Your task to perform on an android device: Add logitech g pro to the cart on newegg, then select checkout. Image 0: 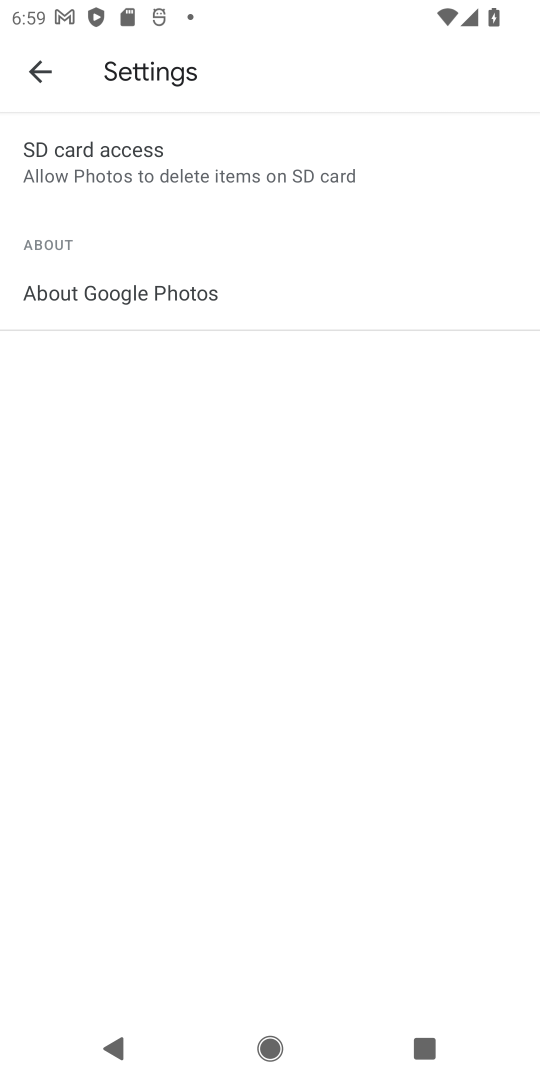
Step 0: press home button
Your task to perform on an android device: Add logitech g pro to the cart on newegg, then select checkout. Image 1: 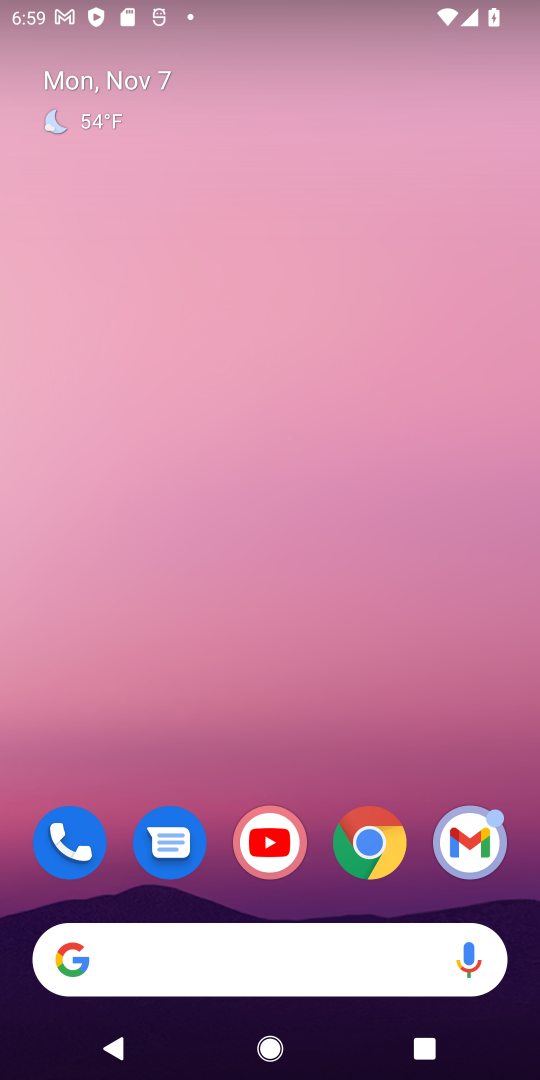
Step 1: click (377, 858)
Your task to perform on an android device: Add logitech g pro to the cart on newegg, then select checkout. Image 2: 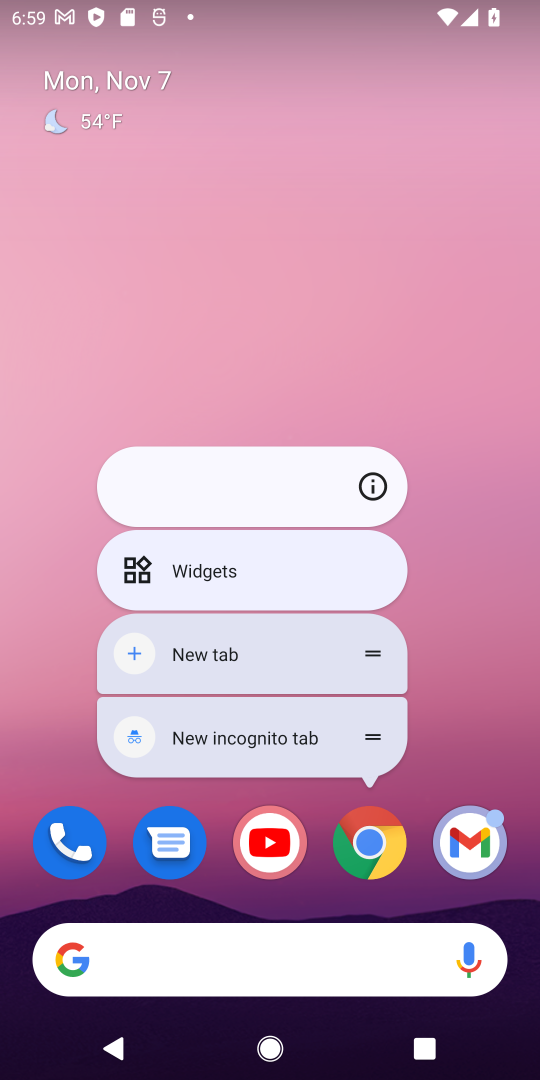
Step 2: click (367, 851)
Your task to perform on an android device: Add logitech g pro to the cart on newegg, then select checkout. Image 3: 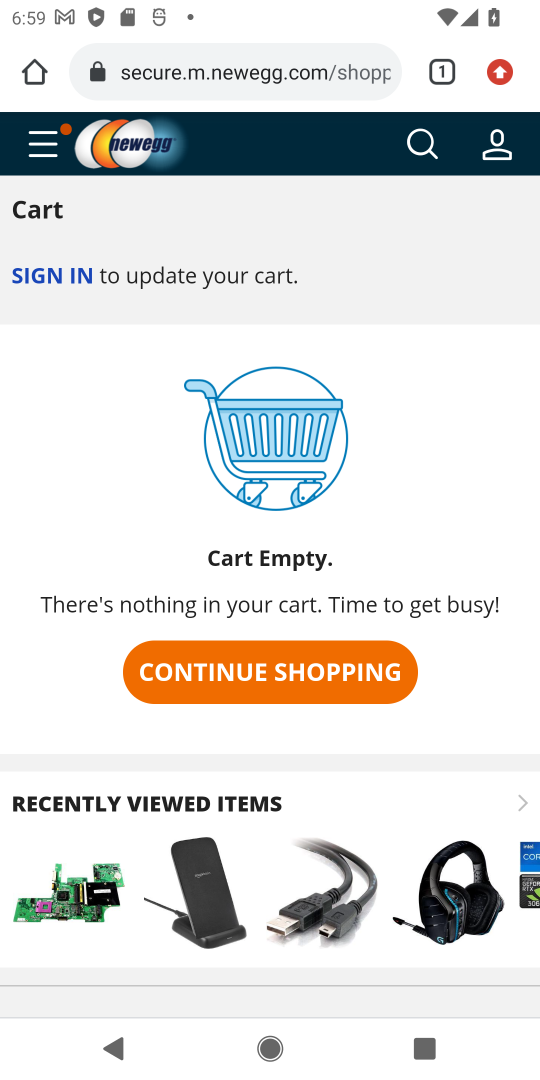
Step 3: click (414, 139)
Your task to perform on an android device: Add logitech g pro to the cart on newegg, then select checkout. Image 4: 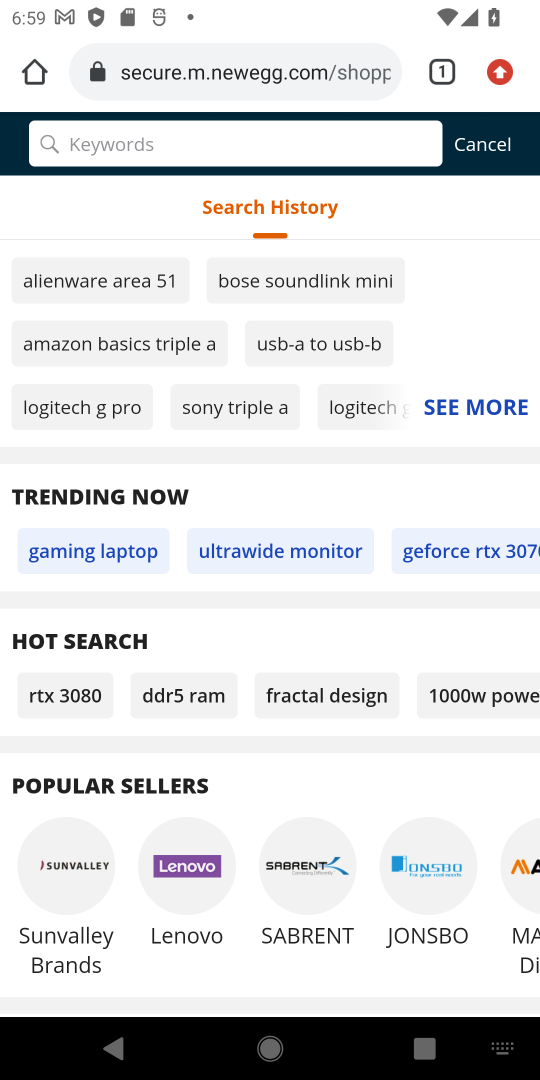
Step 4: type "logitech g pro"
Your task to perform on an android device: Add logitech g pro to the cart on newegg, then select checkout. Image 5: 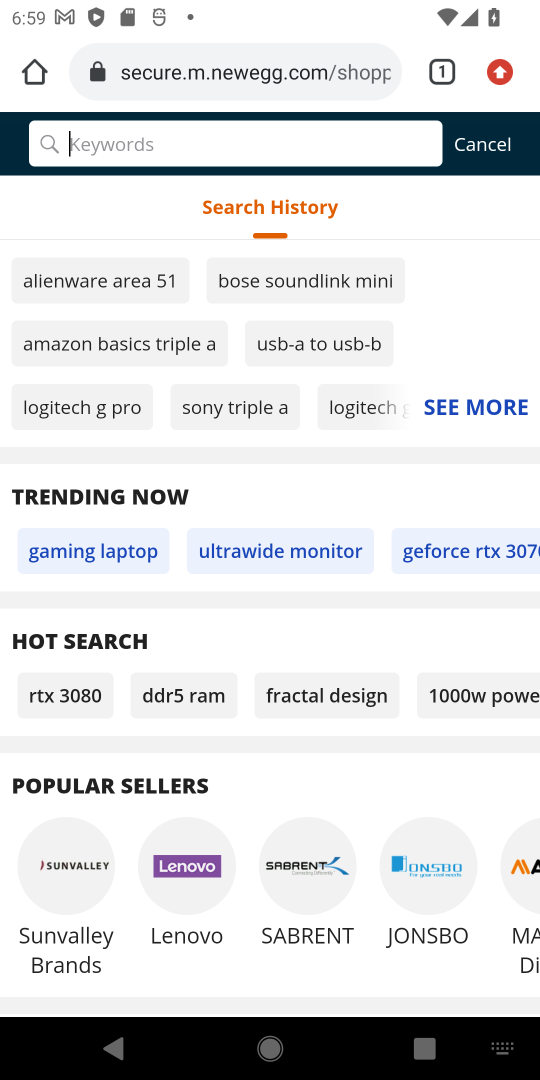
Step 5: press enter
Your task to perform on an android device: Add logitech g pro to the cart on newegg, then select checkout. Image 6: 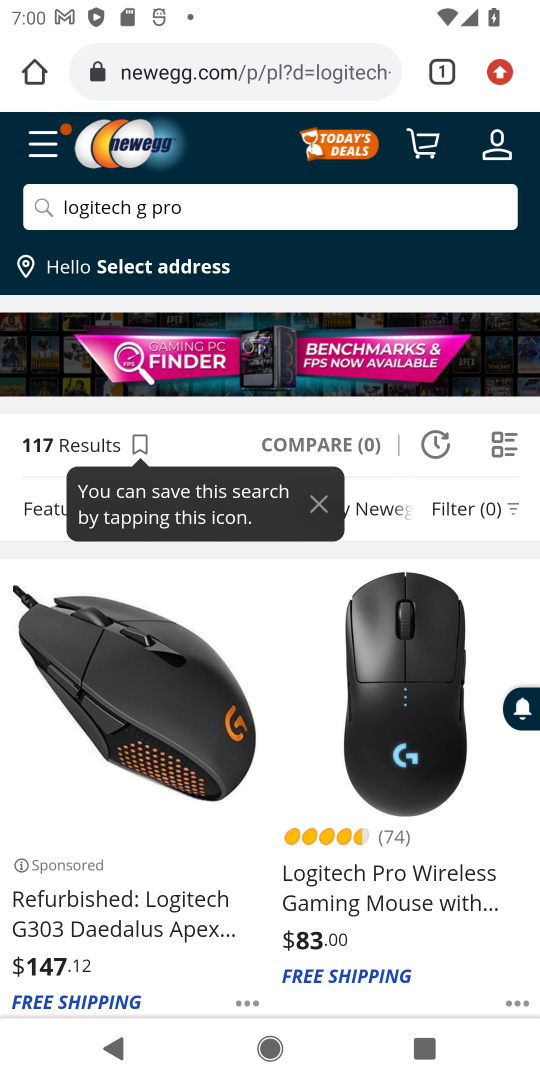
Step 6: drag from (313, 890) to (461, 418)
Your task to perform on an android device: Add logitech g pro to the cart on newegg, then select checkout. Image 7: 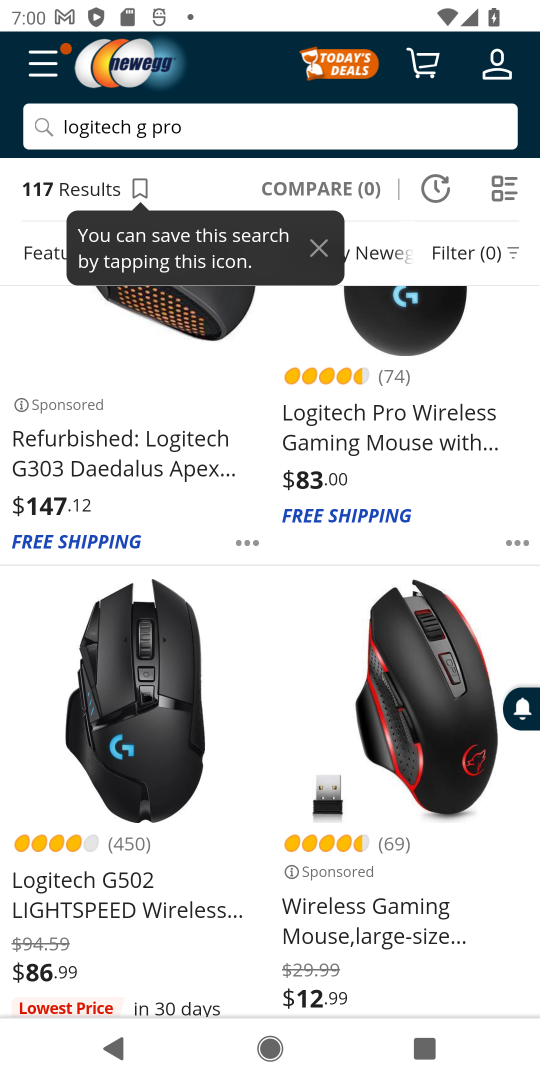
Step 7: drag from (224, 875) to (354, 263)
Your task to perform on an android device: Add logitech g pro to the cart on newegg, then select checkout. Image 8: 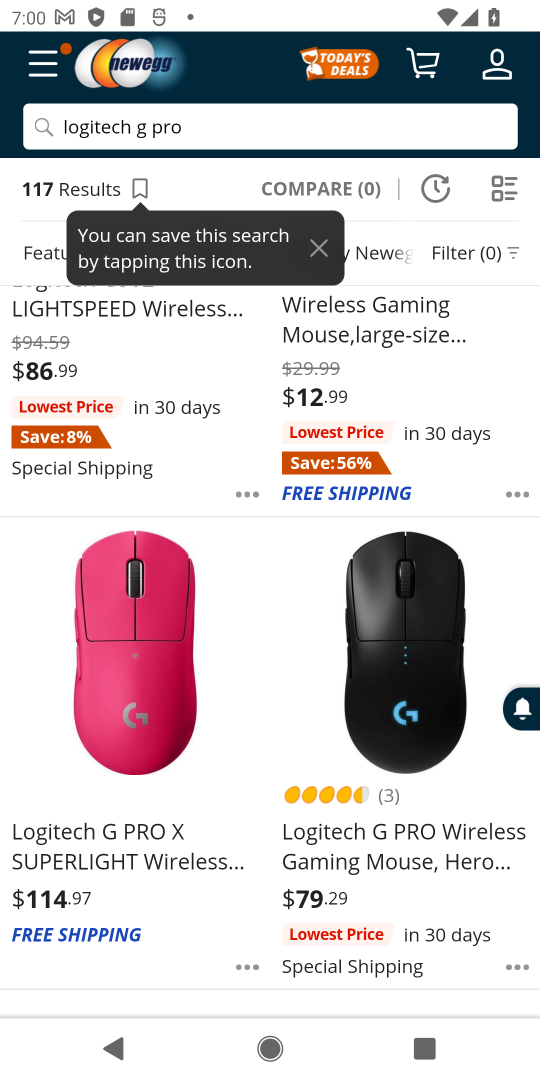
Step 8: click (405, 827)
Your task to perform on an android device: Add logitech g pro to the cart on newegg, then select checkout. Image 9: 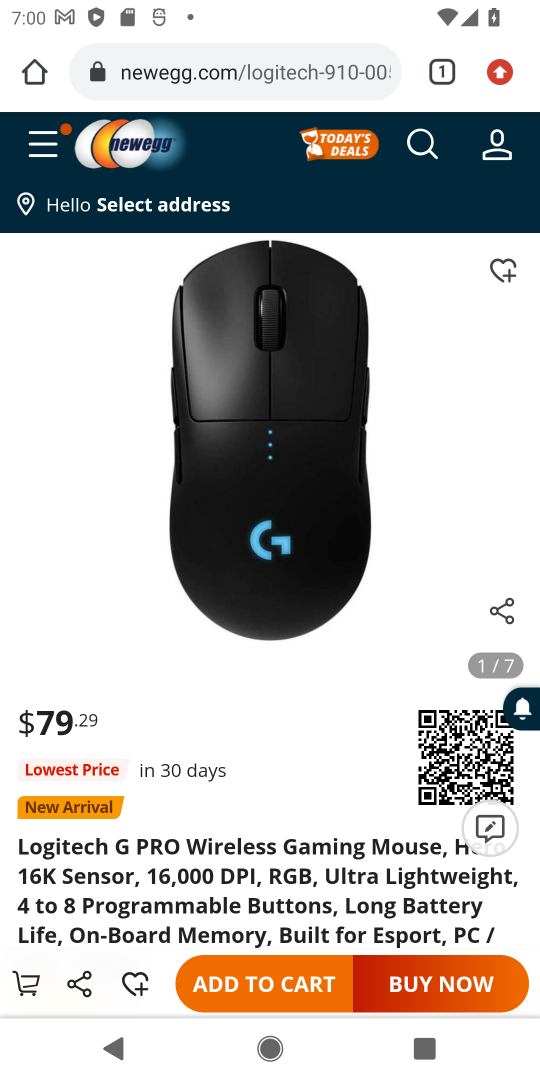
Step 9: drag from (293, 890) to (323, 527)
Your task to perform on an android device: Add logitech g pro to the cart on newegg, then select checkout. Image 10: 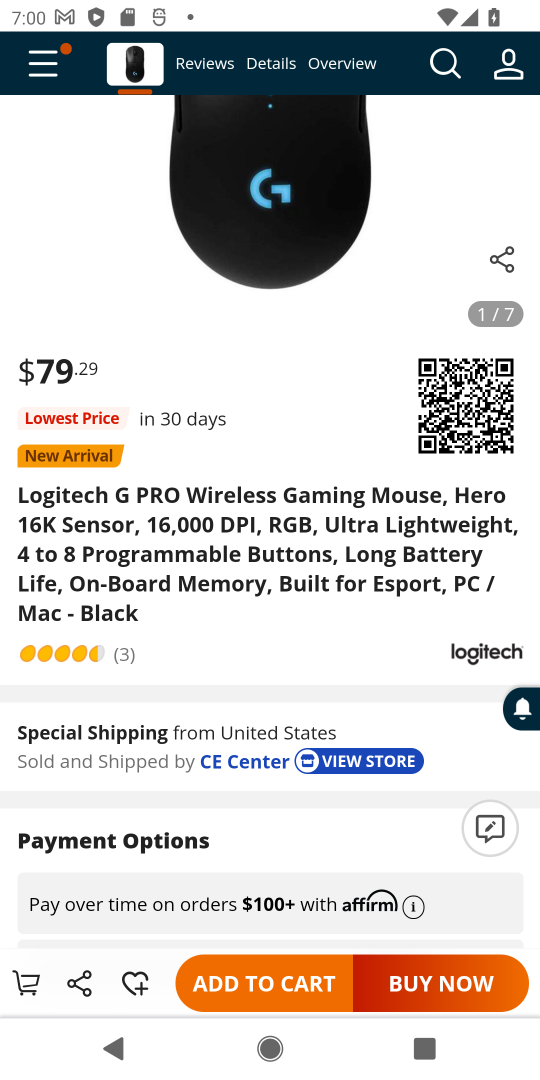
Step 10: click (260, 984)
Your task to perform on an android device: Add logitech g pro to the cart on newegg, then select checkout. Image 11: 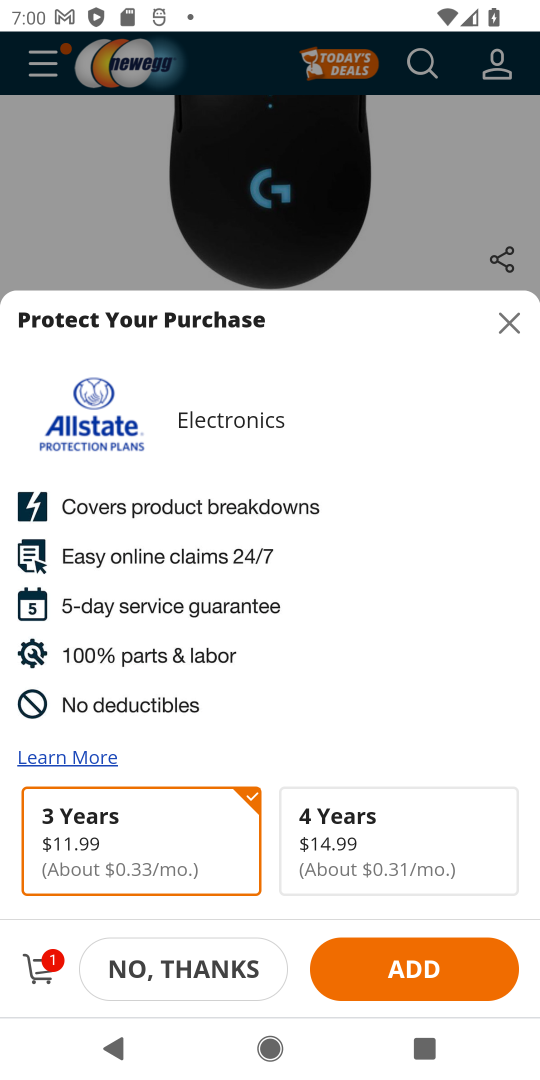
Step 11: click (44, 961)
Your task to perform on an android device: Add logitech g pro to the cart on newegg, then select checkout. Image 12: 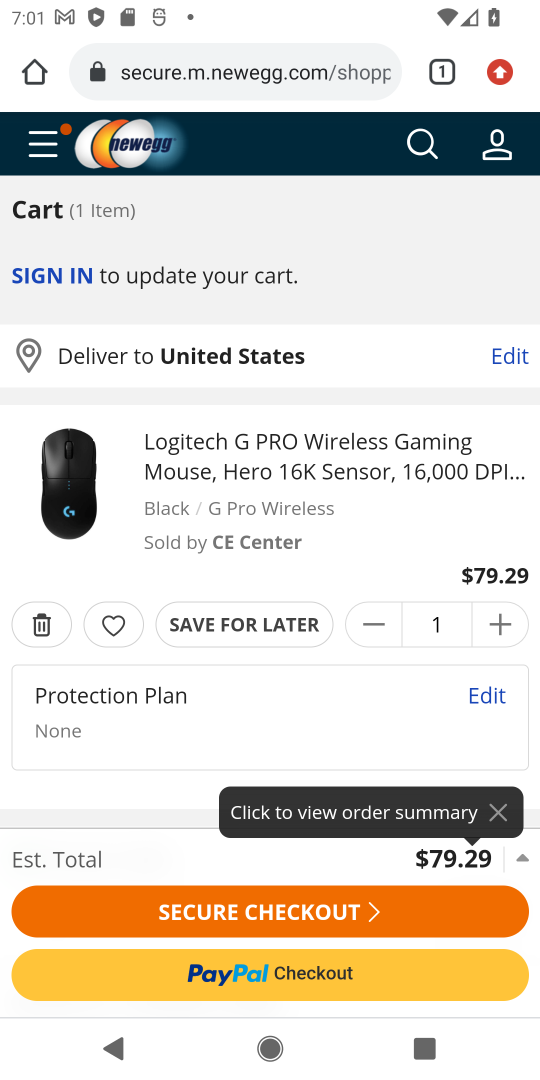
Step 12: click (326, 912)
Your task to perform on an android device: Add logitech g pro to the cart on newegg, then select checkout. Image 13: 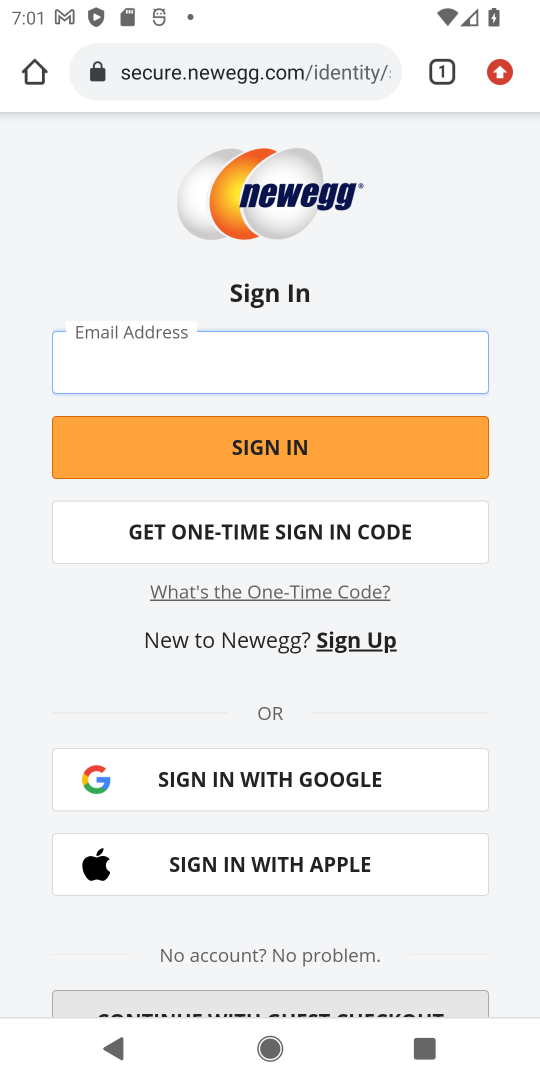
Step 13: task complete